Your task to perform on an android device: turn off translation in the chrome app Image 0: 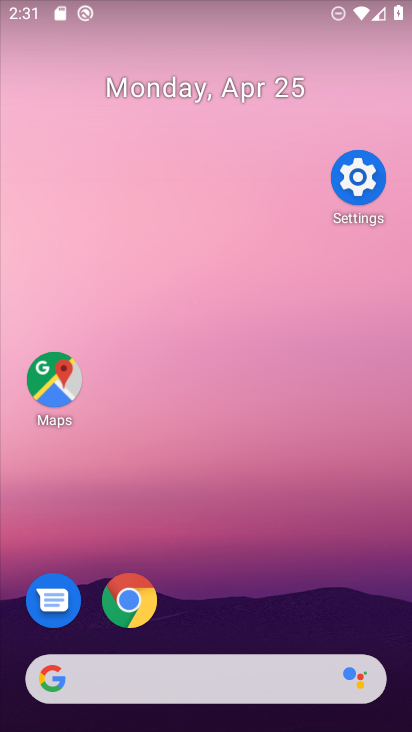
Step 0: drag from (278, 586) to (84, 194)
Your task to perform on an android device: turn off translation in the chrome app Image 1: 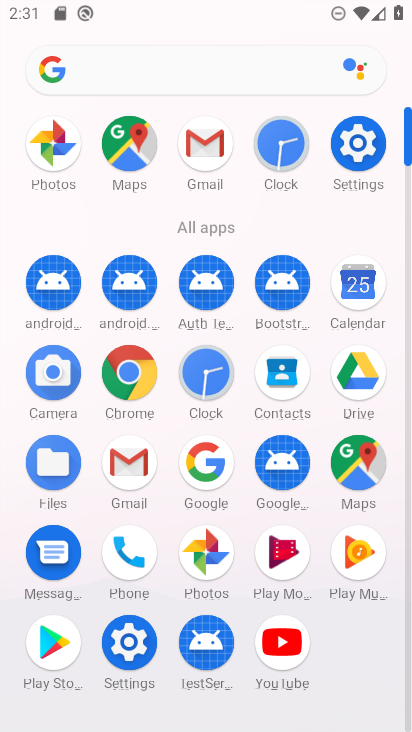
Step 1: click (127, 385)
Your task to perform on an android device: turn off translation in the chrome app Image 2: 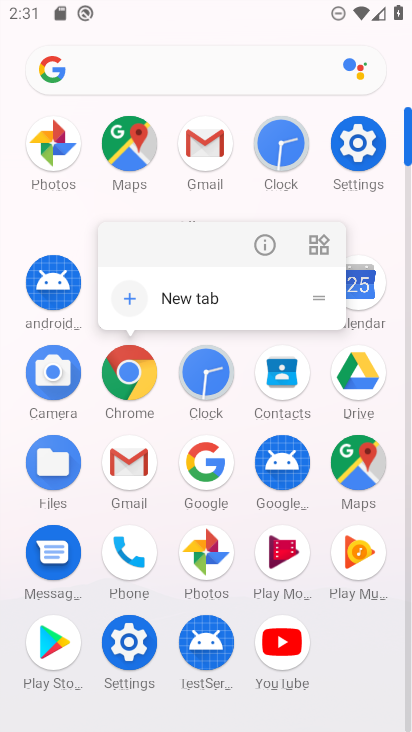
Step 2: click (125, 373)
Your task to perform on an android device: turn off translation in the chrome app Image 3: 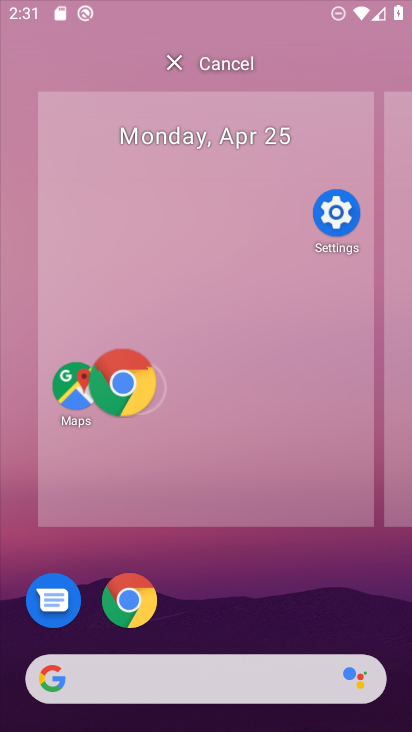
Step 3: drag from (266, 604) to (98, 197)
Your task to perform on an android device: turn off translation in the chrome app Image 4: 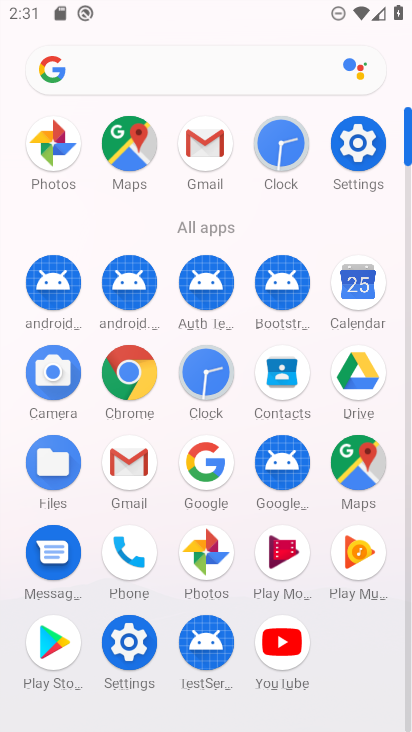
Step 4: click (198, 17)
Your task to perform on an android device: turn off translation in the chrome app Image 5: 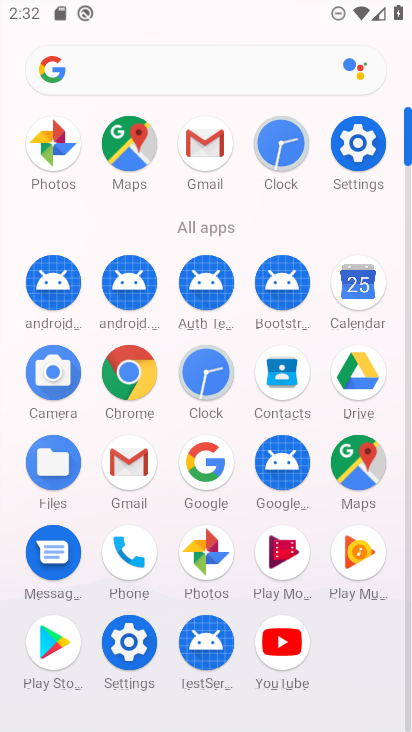
Step 5: click (120, 373)
Your task to perform on an android device: turn off translation in the chrome app Image 6: 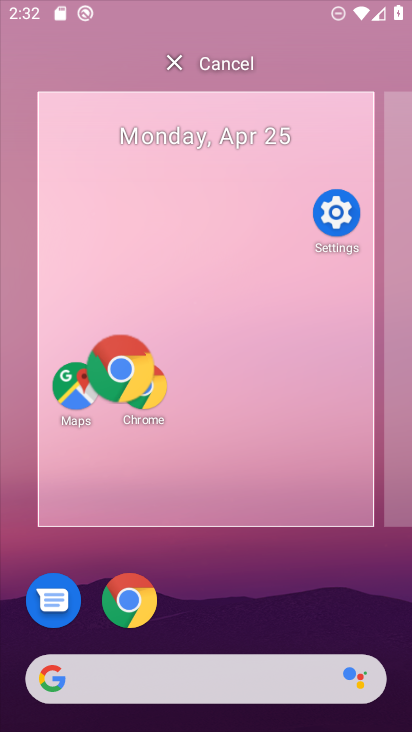
Step 6: click (110, 370)
Your task to perform on an android device: turn off translation in the chrome app Image 7: 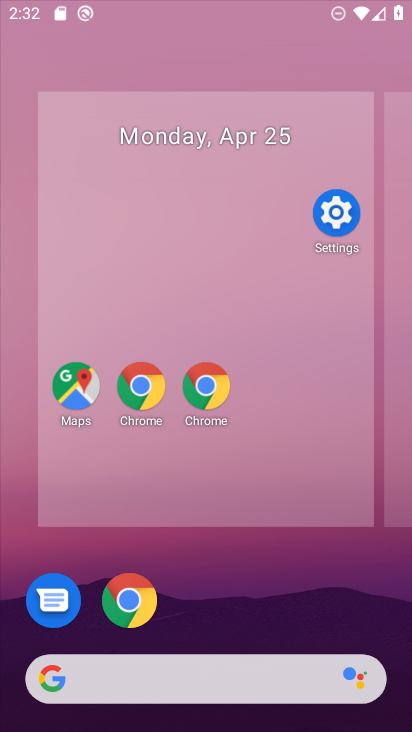
Step 7: click (123, 367)
Your task to perform on an android device: turn off translation in the chrome app Image 8: 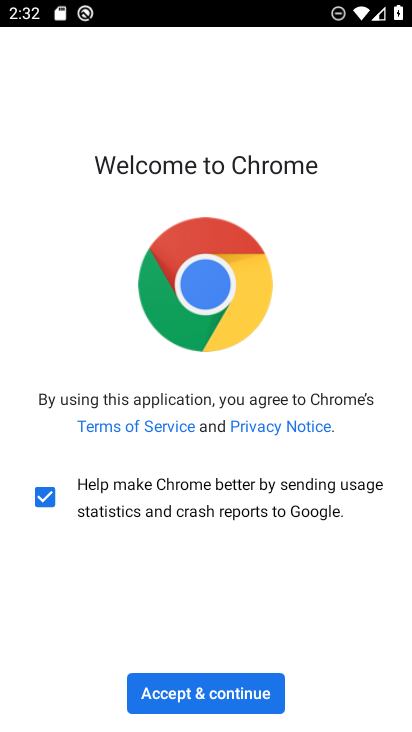
Step 8: click (210, 682)
Your task to perform on an android device: turn off translation in the chrome app Image 9: 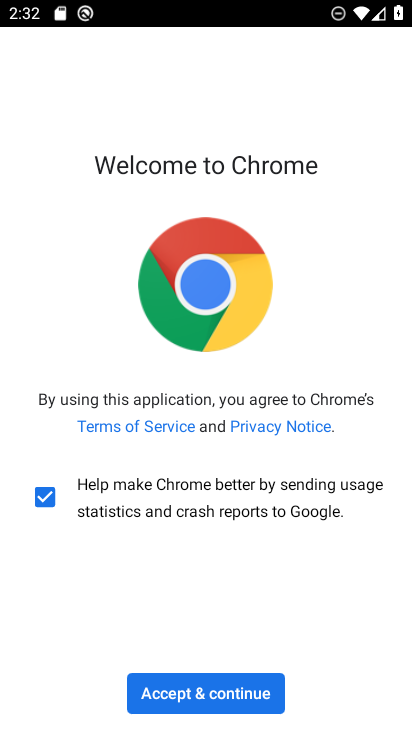
Step 9: click (208, 687)
Your task to perform on an android device: turn off translation in the chrome app Image 10: 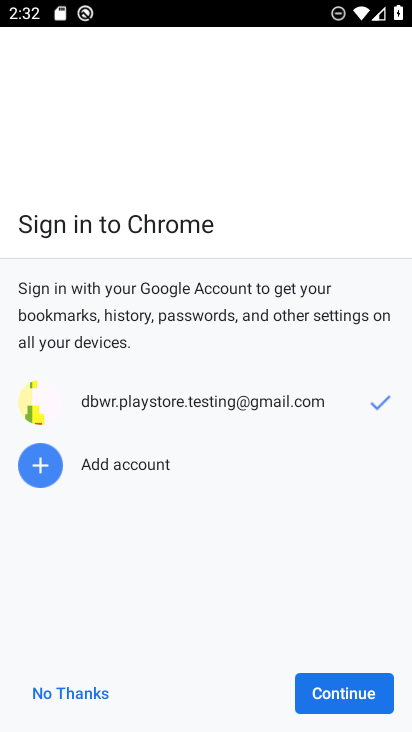
Step 10: click (354, 690)
Your task to perform on an android device: turn off translation in the chrome app Image 11: 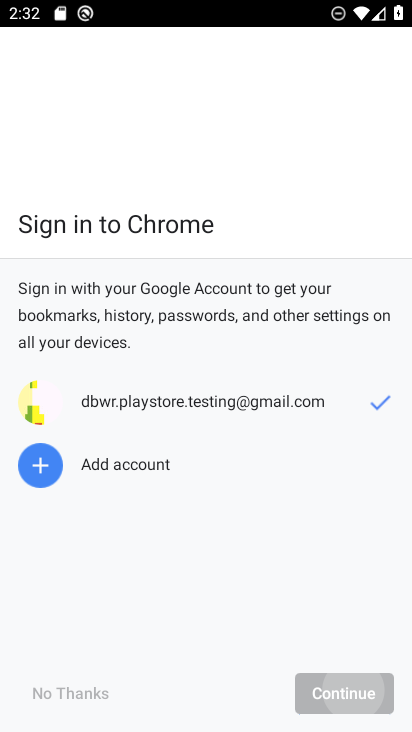
Step 11: click (354, 691)
Your task to perform on an android device: turn off translation in the chrome app Image 12: 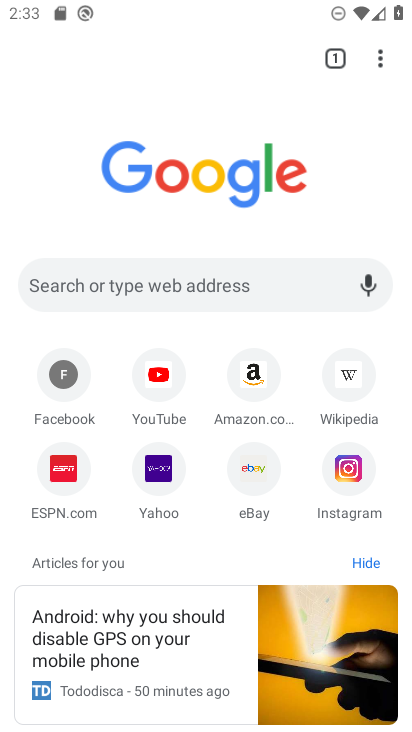
Step 12: click (380, 59)
Your task to perform on an android device: turn off translation in the chrome app Image 13: 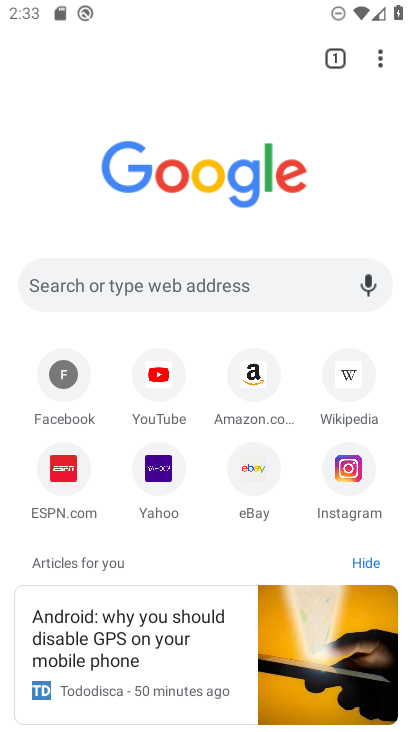
Step 13: drag from (379, 54) to (167, 500)
Your task to perform on an android device: turn off translation in the chrome app Image 14: 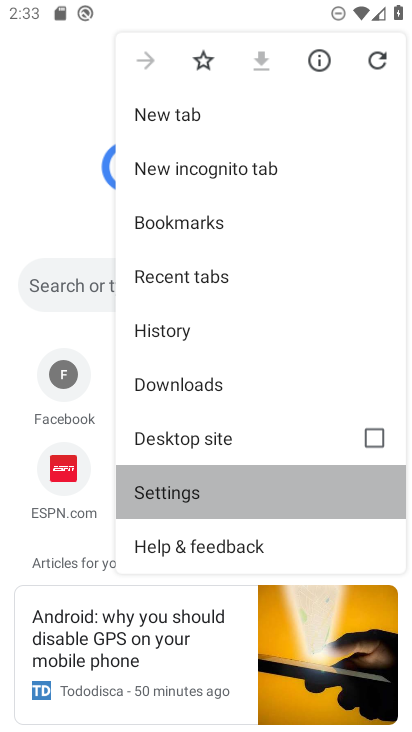
Step 14: click (167, 501)
Your task to perform on an android device: turn off translation in the chrome app Image 15: 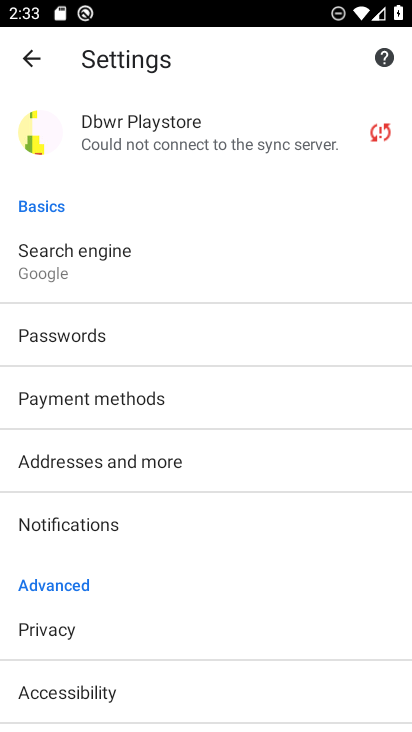
Step 15: drag from (126, 558) to (33, 40)
Your task to perform on an android device: turn off translation in the chrome app Image 16: 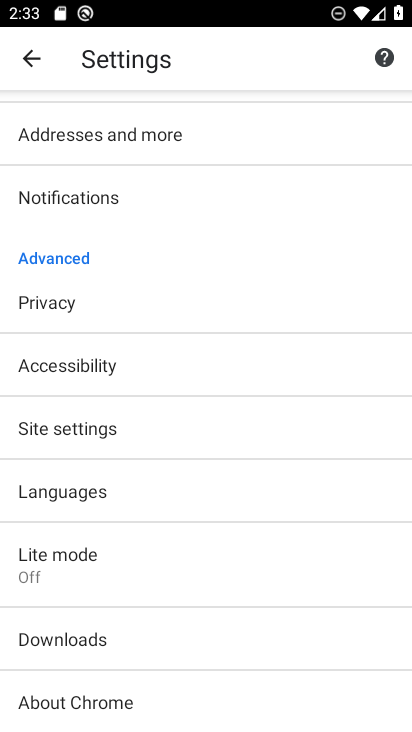
Step 16: click (80, 486)
Your task to perform on an android device: turn off translation in the chrome app Image 17: 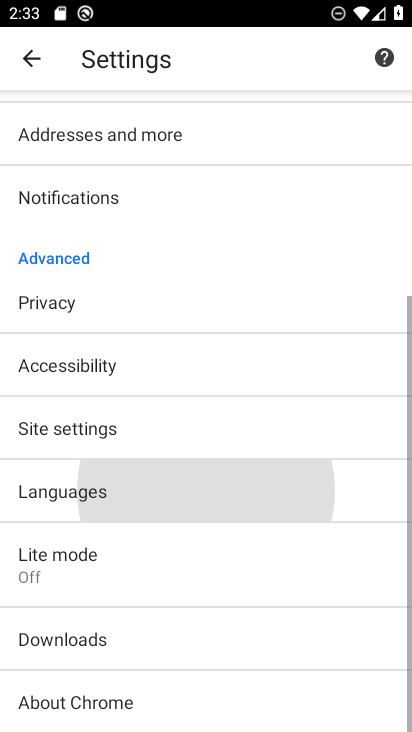
Step 17: click (80, 486)
Your task to perform on an android device: turn off translation in the chrome app Image 18: 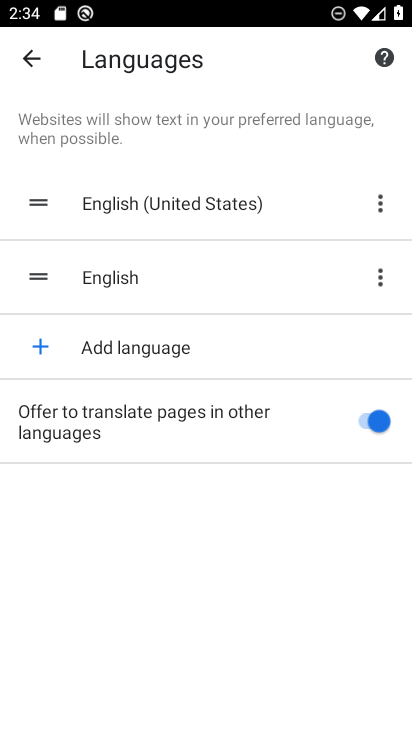
Step 18: click (375, 424)
Your task to perform on an android device: turn off translation in the chrome app Image 19: 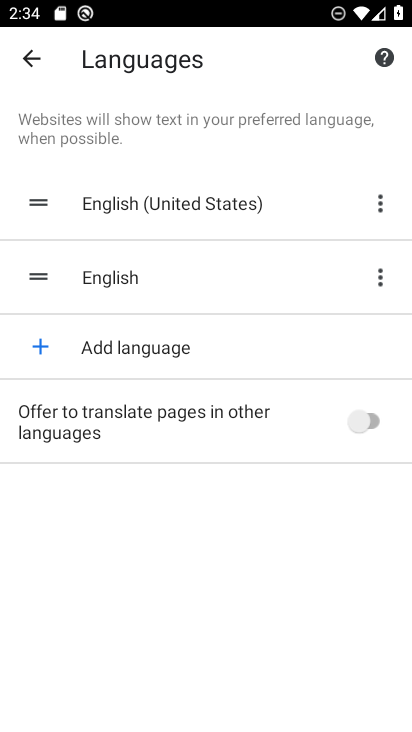
Step 19: task complete